Your task to perform on an android device: Do I have any events this weekend? Image 0: 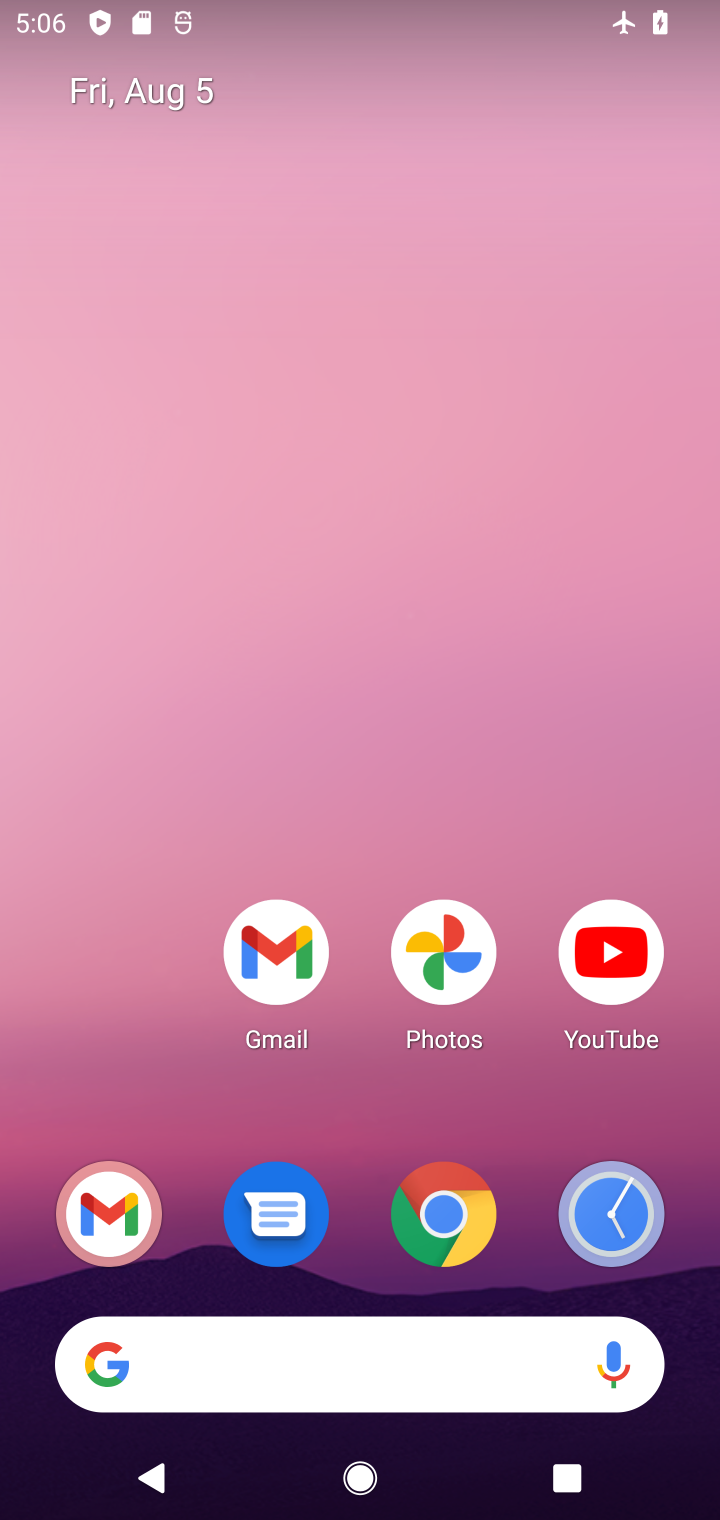
Step 0: drag from (143, 979) to (320, 141)
Your task to perform on an android device: Do I have any events this weekend? Image 1: 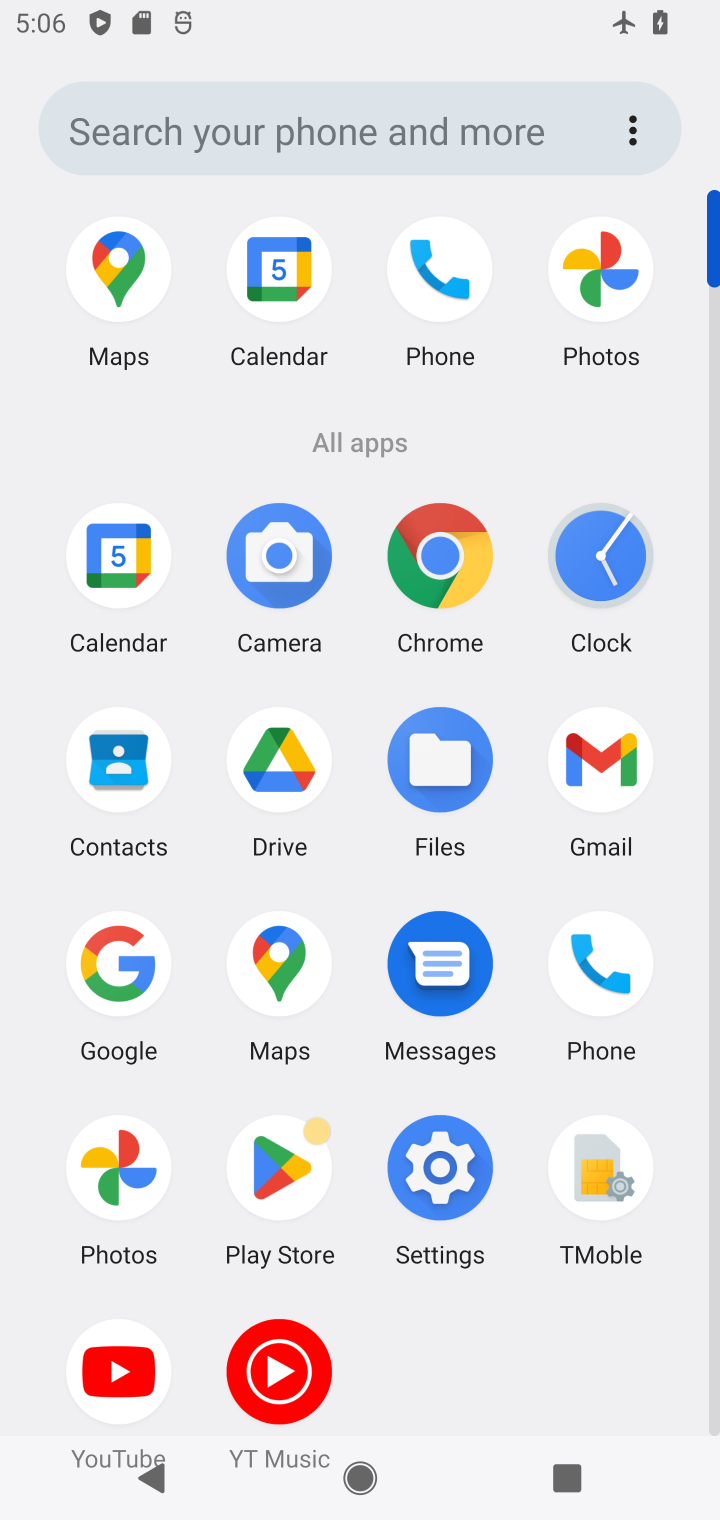
Step 1: click (124, 570)
Your task to perform on an android device: Do I have any events this weekend? Image 2: 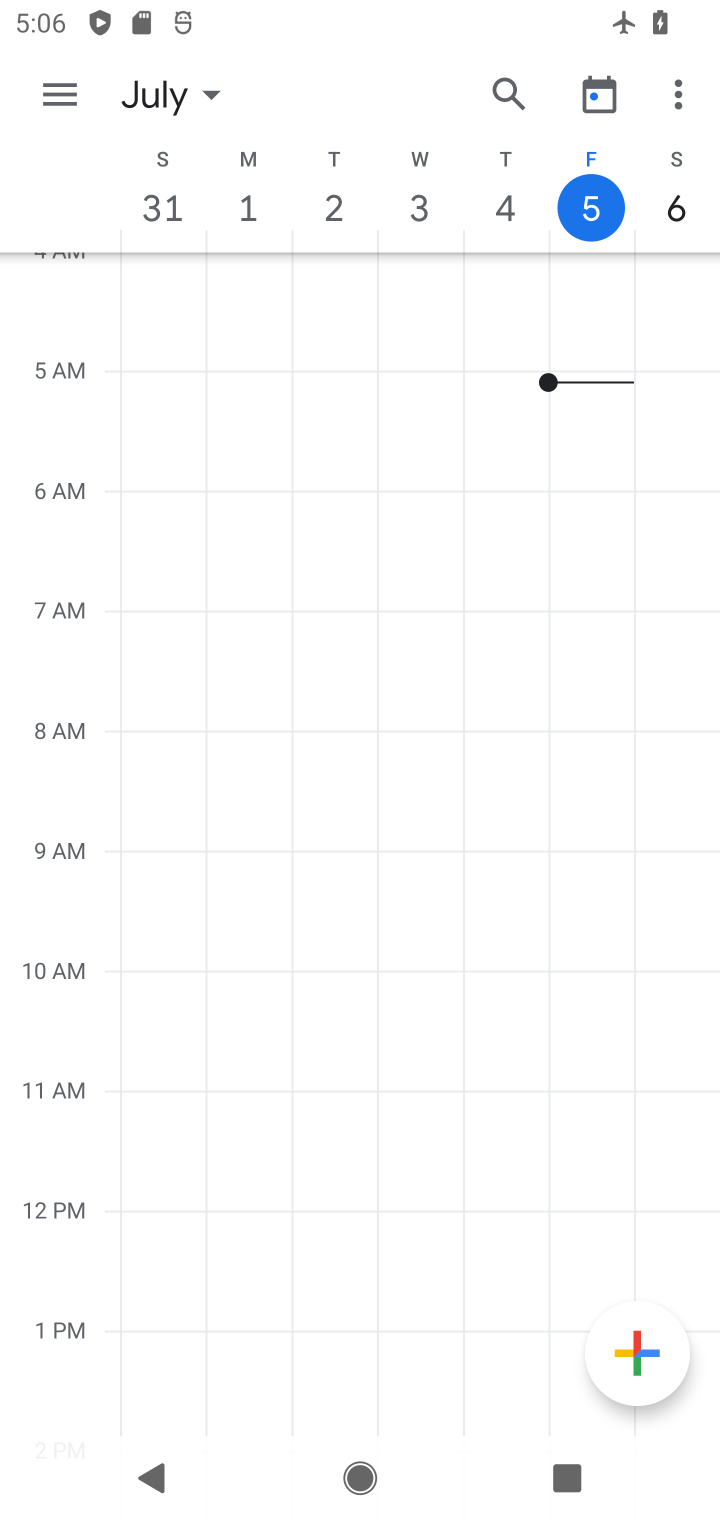
Step 2: task complete